Your task to perform on an android device: turn off location history Image 0: 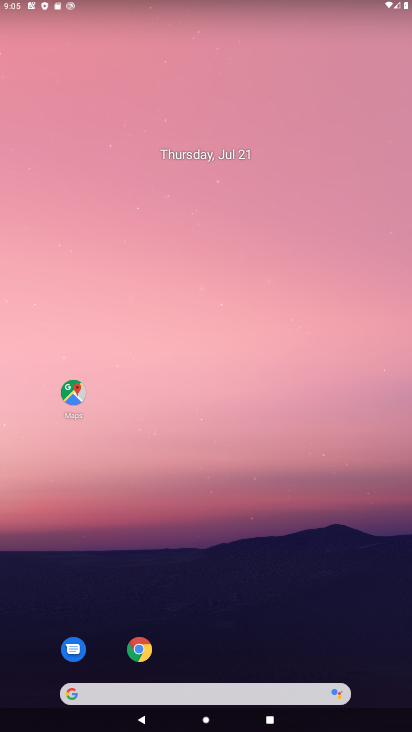
Step 0: drag from (222, 648) to (230, 165)
Your task to perform on an android device: turn off location history Image 1: 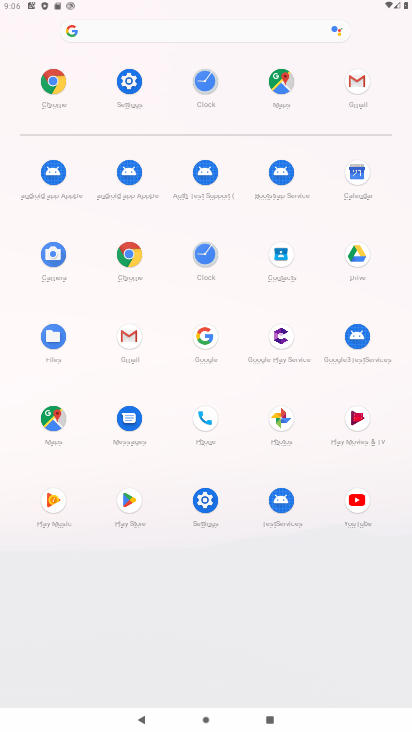
Step 1: click (200, 507)
Your task to perform on an android device: turn off location history Image 2: 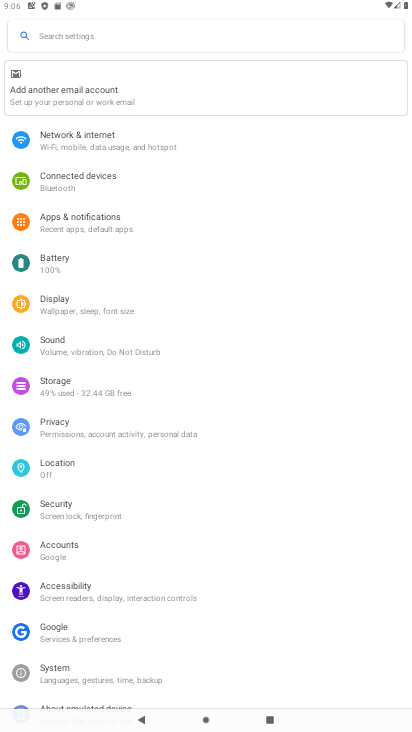
Step 2: click (87, 473)
Your task to perform on an android device: turn off location history Image 3: 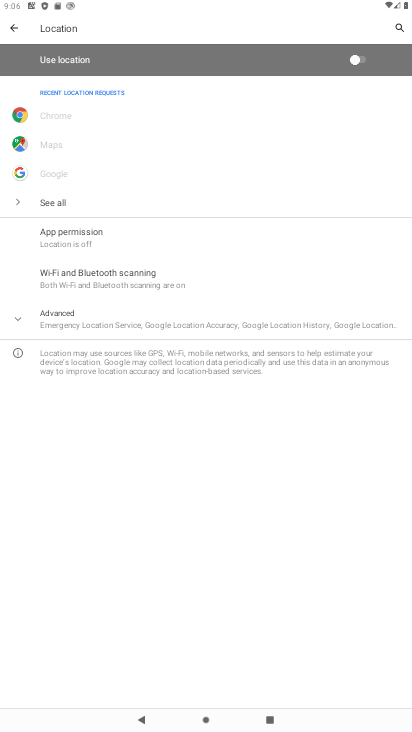
Step 3: click (60, 319)
Your task to perform on an android device: turn off location history Image 4: 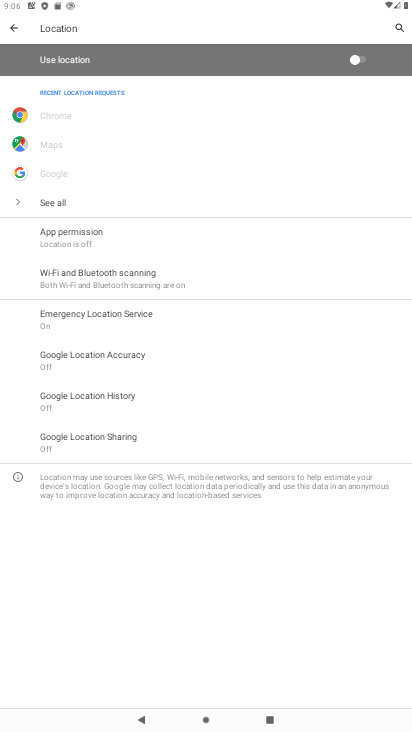
Step 4: click (130, 400)
Your task to perform on an android device: turn off location history Image 5: 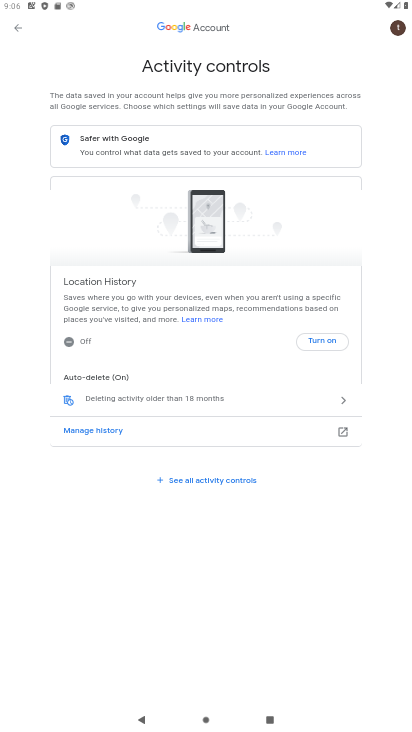
Step 5: task complete